Your task to perform on an android device: toggle airplane mode Image 0: 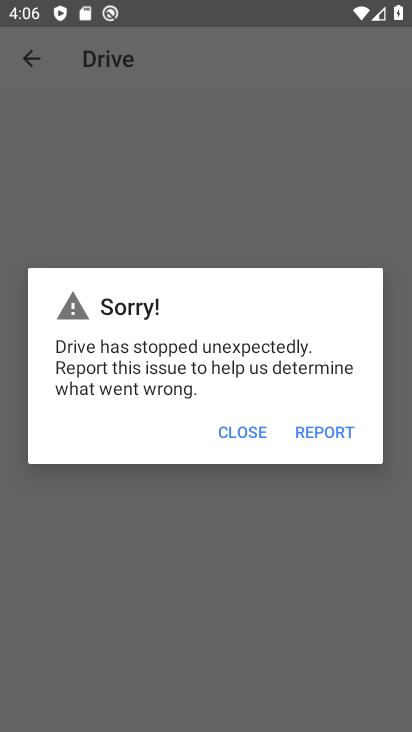
Step 0: press home button
Your task to perform on an android device: toggle airplane mode Image 1: 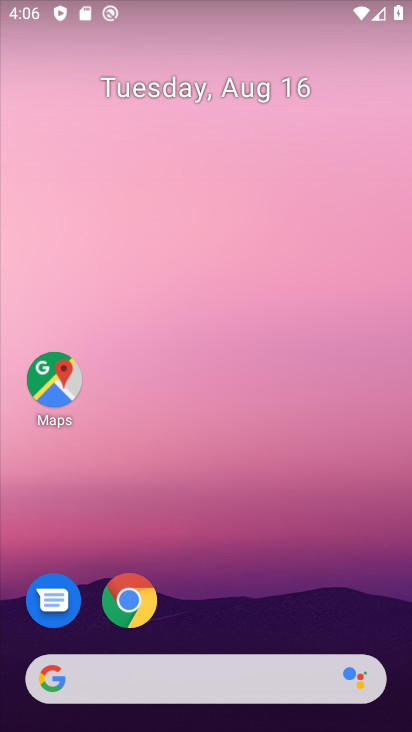
Step 1: drag from (197, 639) to (233, 252)
Your task to perform on an android device: toggle airplane mode Image 2: 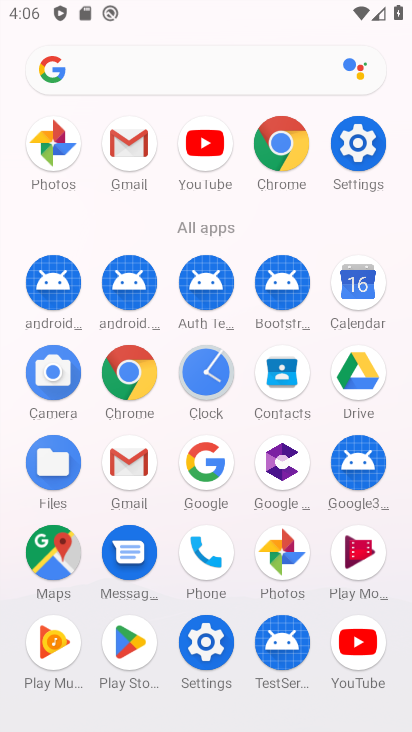
Step 2: click (199, 638)
Your task to perform on an android device: toggle airplane mode Image 3: 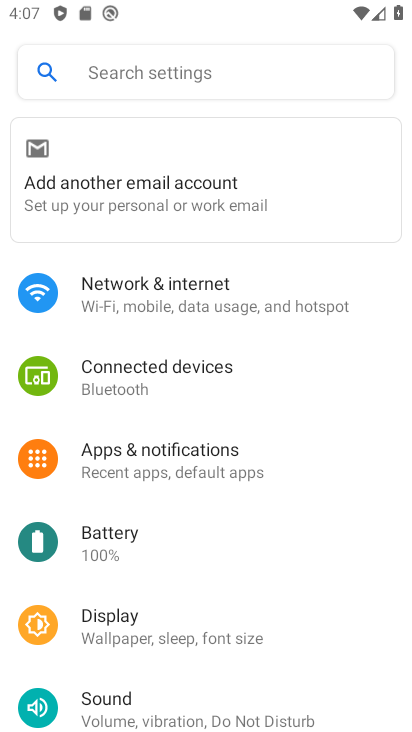
Step 3: click (171, 300)
Your task to perform on an android device: toggle airplane mode Image 4: 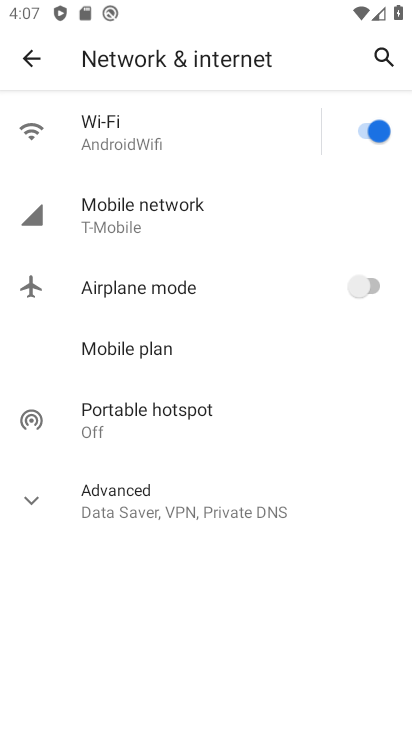
Step 4: click (372, 287)
Your task to perform on an android device: toggle airplane mode Image 5: 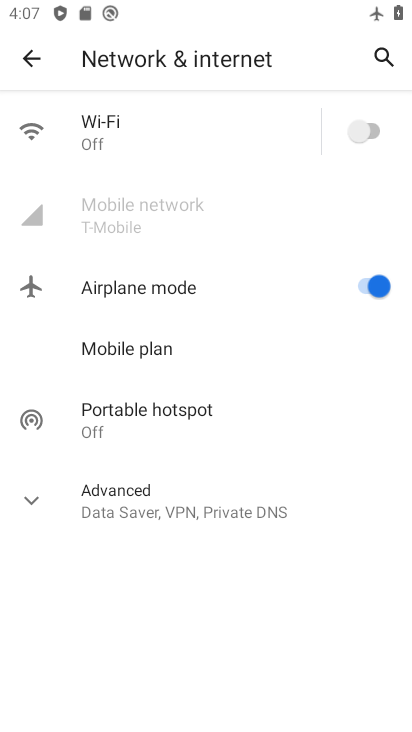
Step 5: task complete